Your task to perform on an android device: toggle notifications settings in the gmail app Image 0: 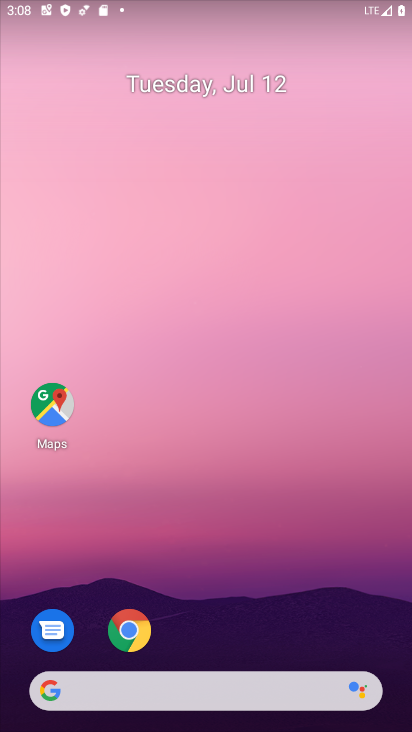
Step 0: click (265, 65)
Your task to perform on an android device: toggle notifications settings in the gmail app Image 1: 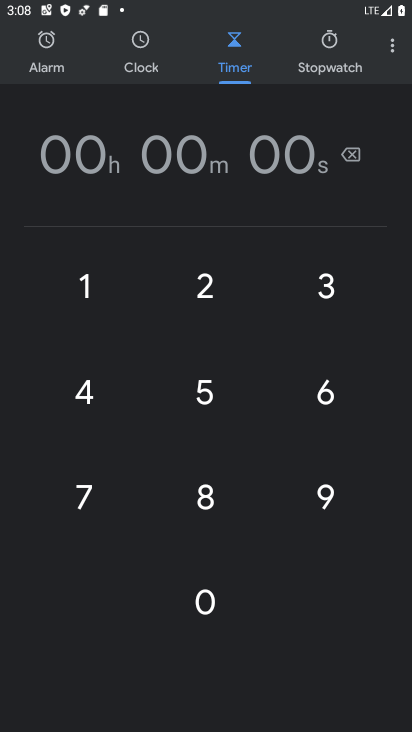
Step 1: press home button
Your task to perform on an android device: toggle notifications settings in the gmail app Image 2: 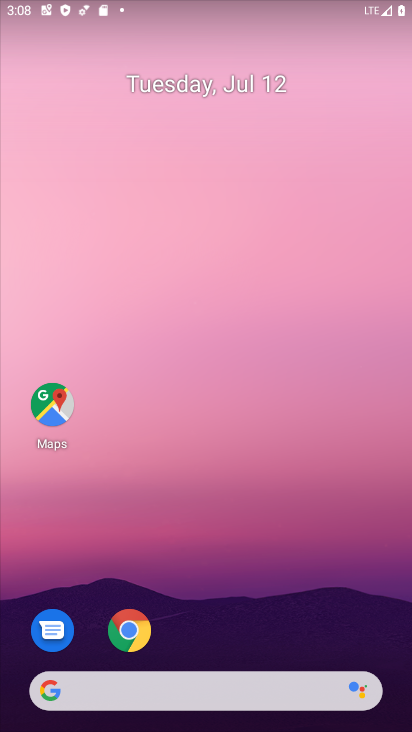
Step 2: drag from (296, 683) to (253, 23)
Your task to perform on an android device: toggle notifications settings in the gmail app Image 3: 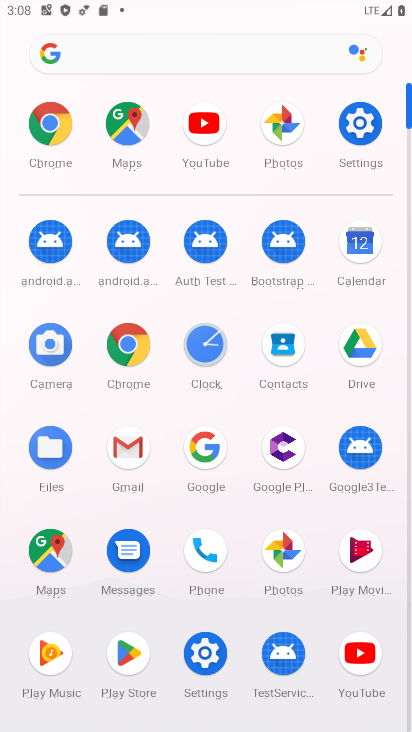
Step 3: click (131, 447)
Your task to perform on an android device: toggle notifications settings in the gmail app Image 4: 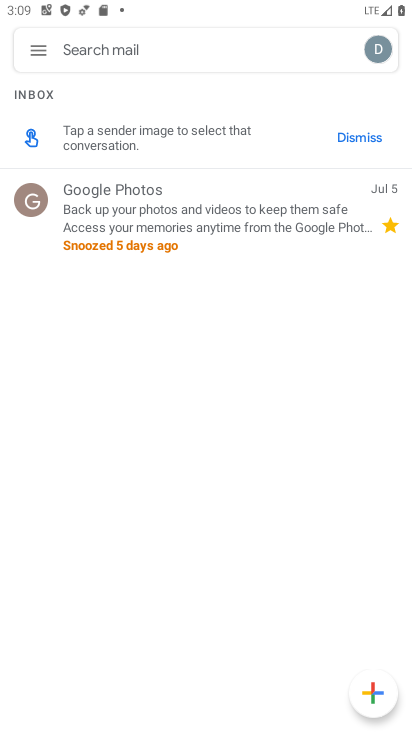
Step 4: click (35, 48)
Your task to perform on an android device: toggle notifications settings in the gmail app Image 5: 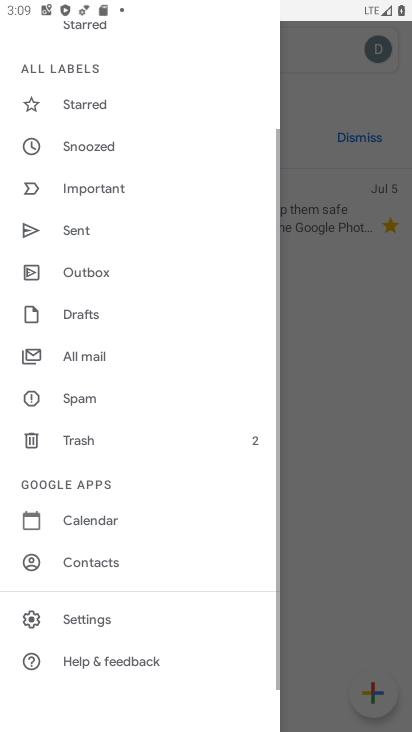
Step 5: click (113, 623)
Your task to perform on an android device: toggle notifications settings in the gmail app Image 6: 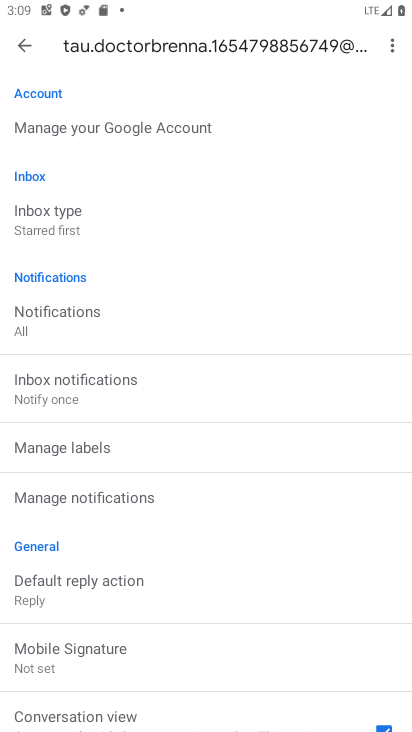
Step 6: click (90, 497)
Your task to perform on an android device: toggle notifications settings in the gmail app Image 7: 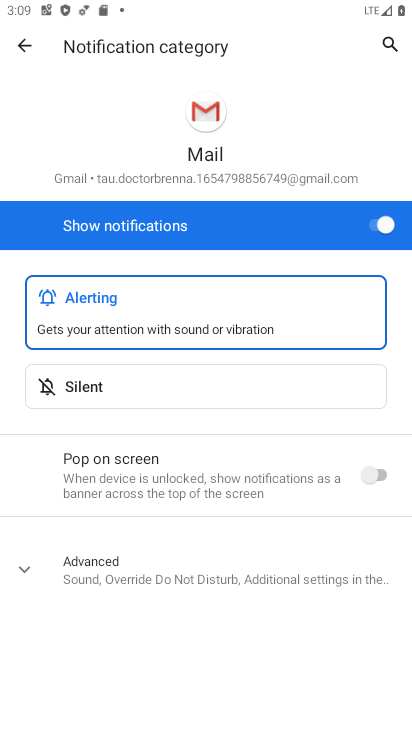
Step 7: click (380, 224)
Your task to perform on an android device: toggle notifications settings in the gmail app Image 8: 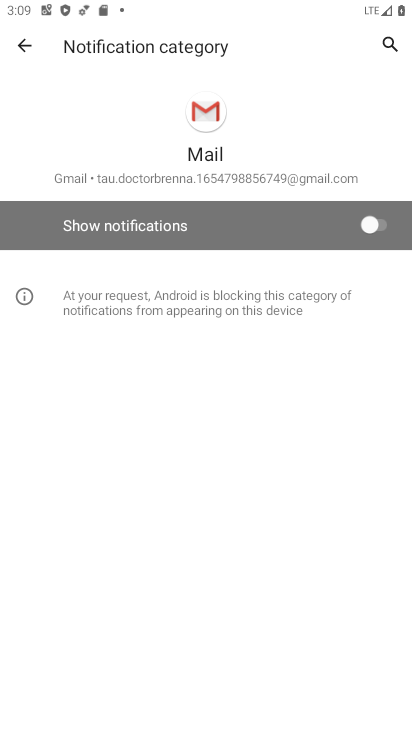
Step 8: task complete